Your task to perform on an android device: change timer sound Image 0: 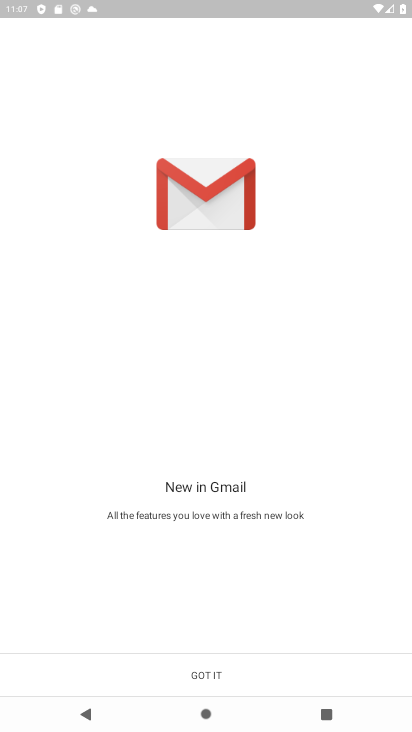
Step 0: press home button
Your task to perform on an android device: change timer sound Image 1: 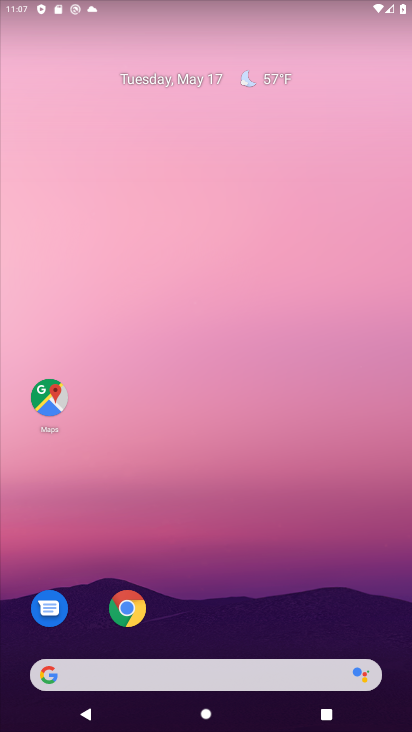
Step 1: drag from (280, 577) to (238, 47)
Your task to perform on an android device: change timer sound Image 2: 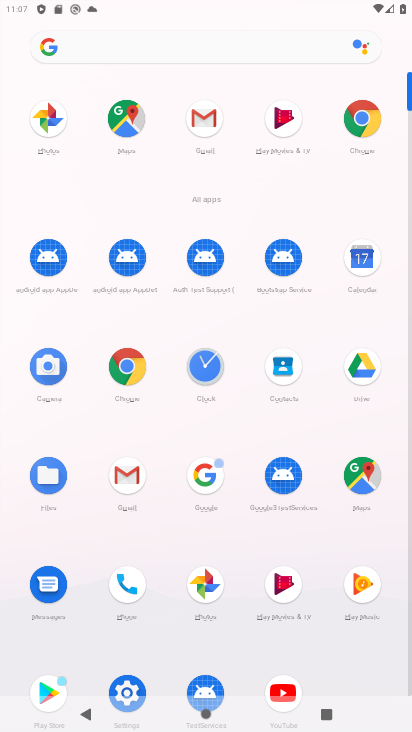
Step 2: click (201, 362)
Your task to perform on an android device: change timer sound Image 3: 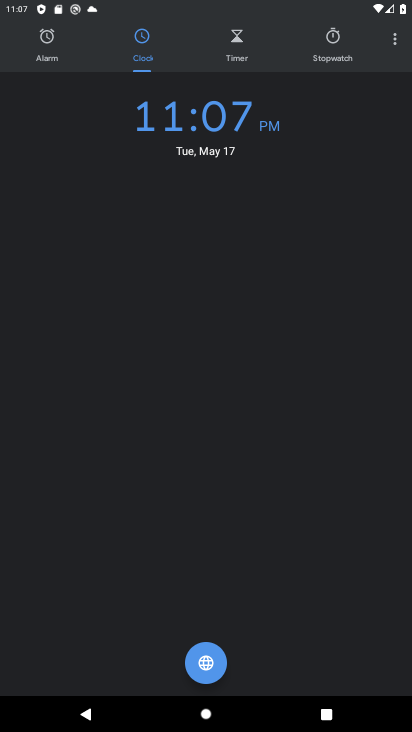
Step 3: click (392, 35)
Your task to perform on an android device: change timer sound Image 4: 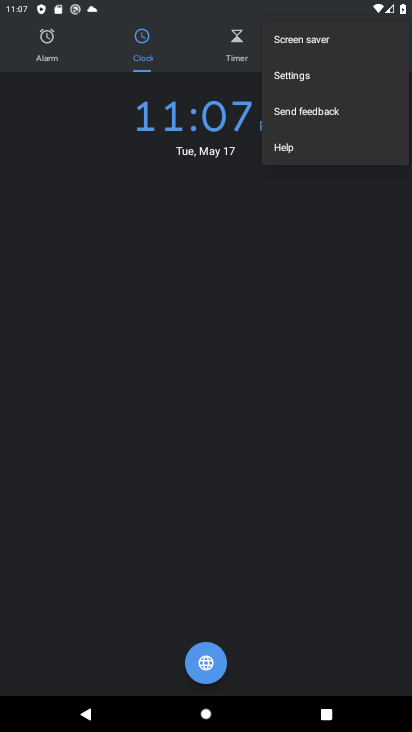
Step 4: click (288, 79)
Your task to perform on an android device: change timer sound Image 5: 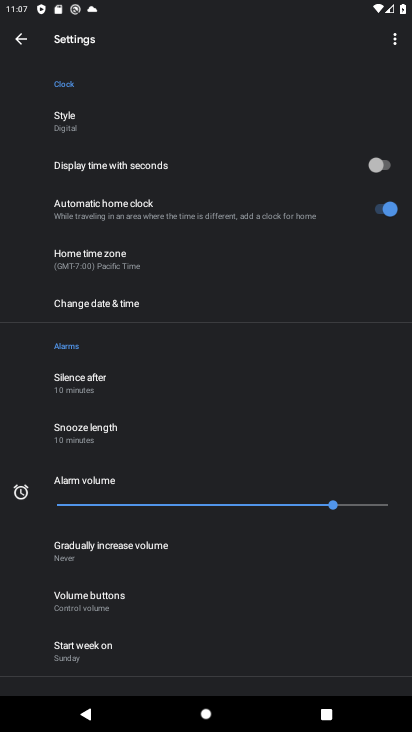
Step 5: drag from (272, 556) to (264, 152)
Your task to perform on an android device: change timer sound Image 6: 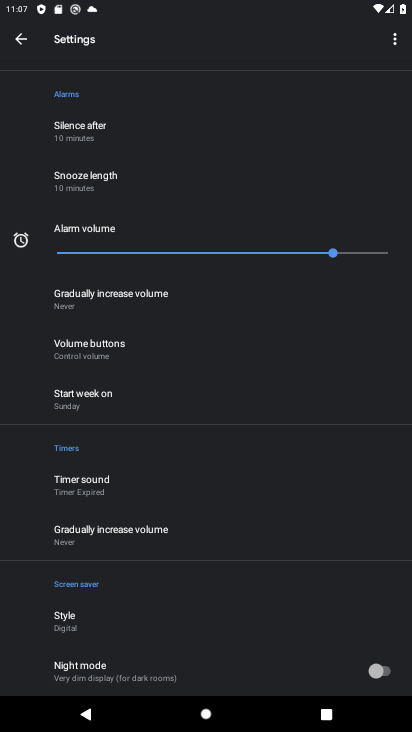
Step 6: click (80, 479)
Your task to perform on an android device: change timer sound Image 7: 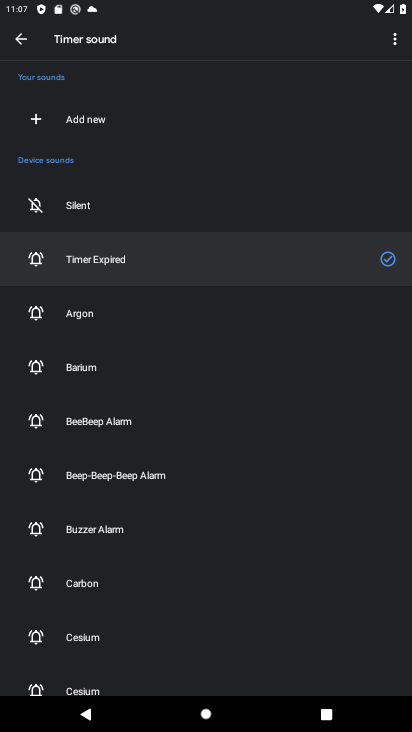
Step 7: click (74, 316)
Your task to perform on an android device: change timer sound Image 8: 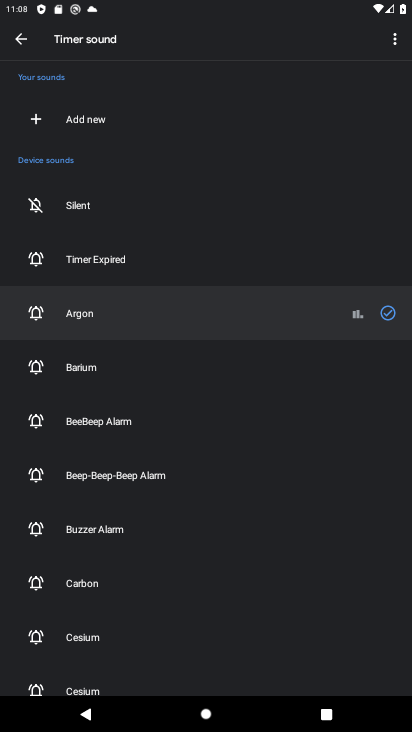
Step 8: task complete